Your task to perform on an android device: Show me recent news Image 0: 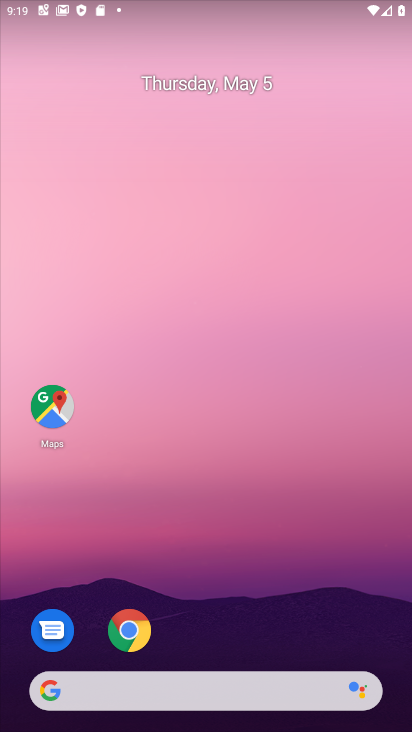
Step 0: click (127, 630)
Your task to perform on an android device: Show me recent news Image 1: 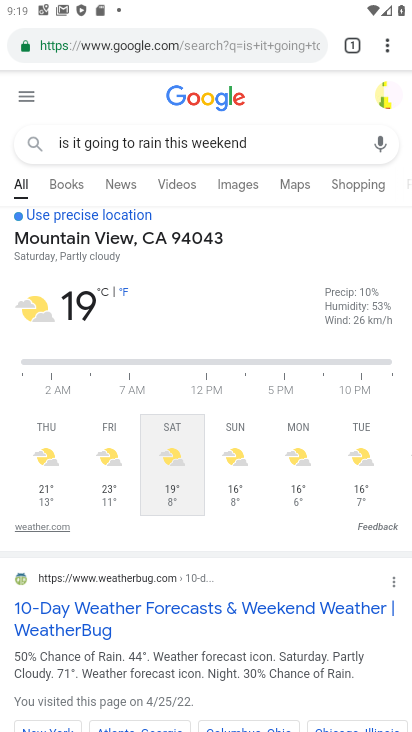
Step 1: click (277, 145)
Your task to perform on an android device: Show me recent news Image 2: 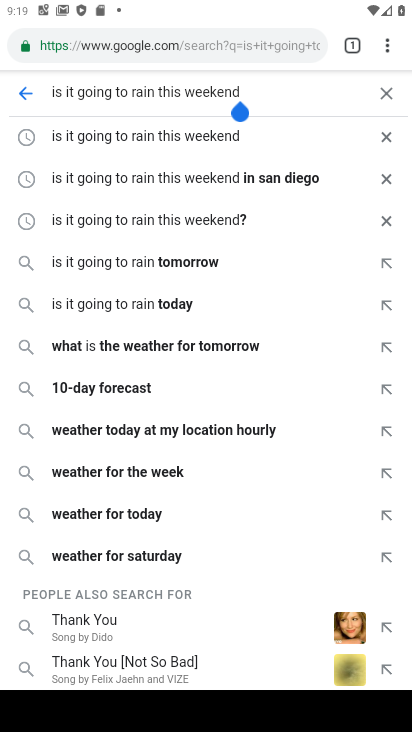
Step 2: click (384, 87)
Your task to perform on an android device: Show me recent news Image 3: 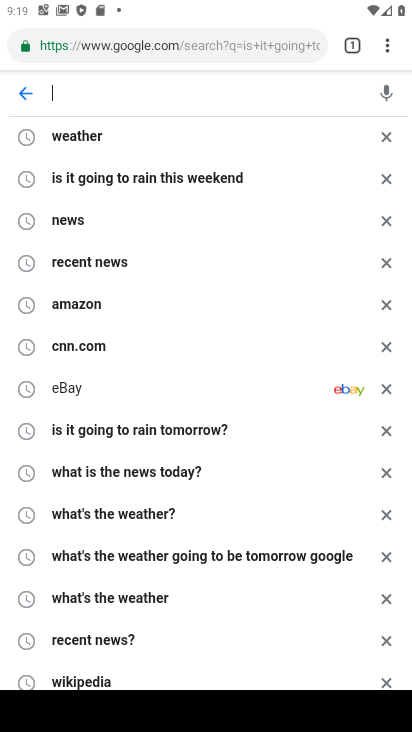
Step 3: click (146, 86)
Your task to perform on an android device: Show me recent news Image 4: 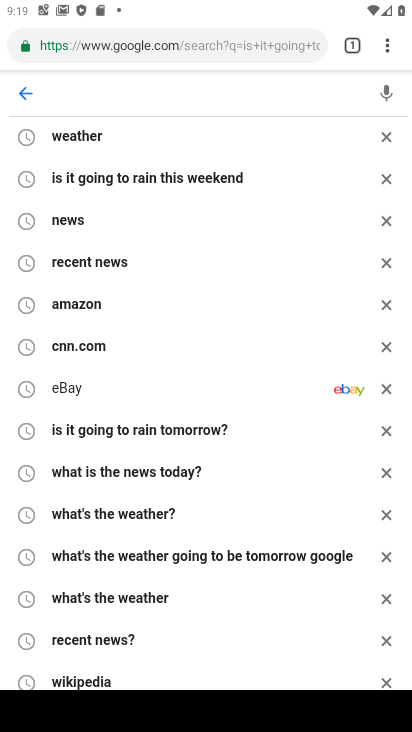
Step 4: type "recent news"
Your task to perform on an android device: Show me recent news Image 5: 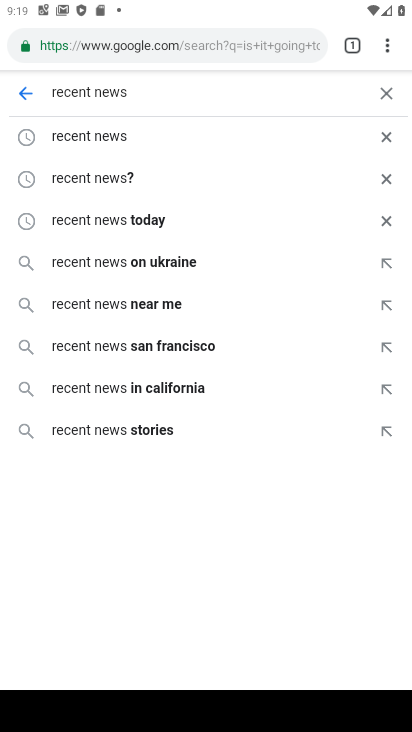
Step 5: click (115, 179)
Your task to perform on an android device: Show me recent news Image 6: 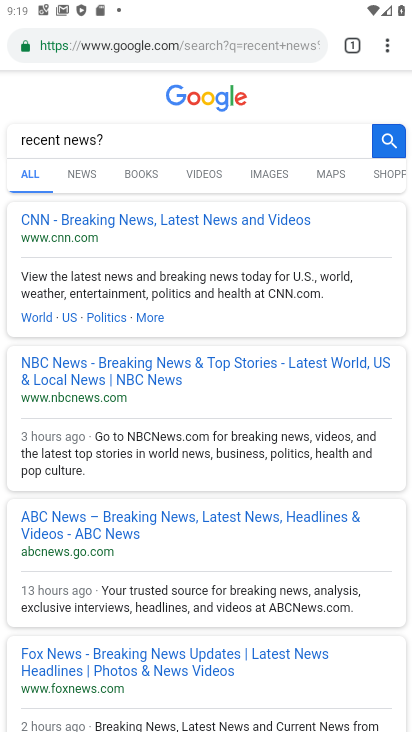
Step 6: click (90, 173)
Your task to perform on an android device: Show me recent news Image 7: 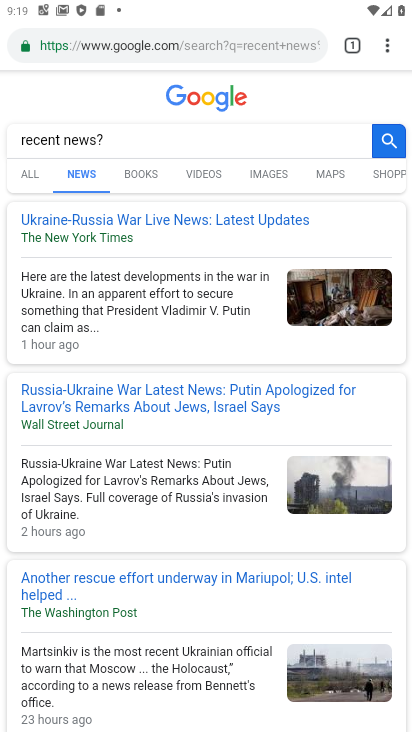
Step 7: task complete